Your task to perform on an android device: Open Reddit.com Image 0: 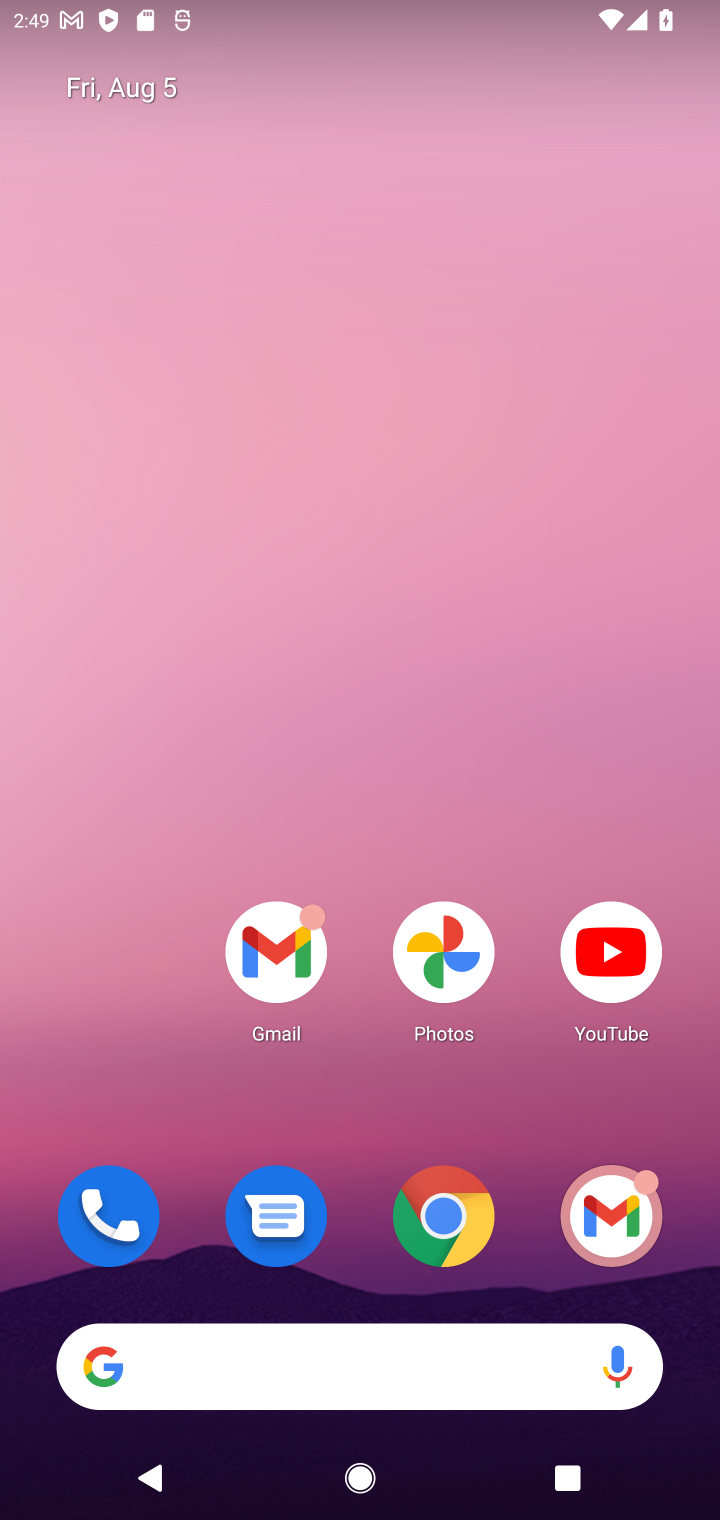
Step 0: click (273, 1346)
Your task to perform on an android device: Open Reddit.com Image 1: 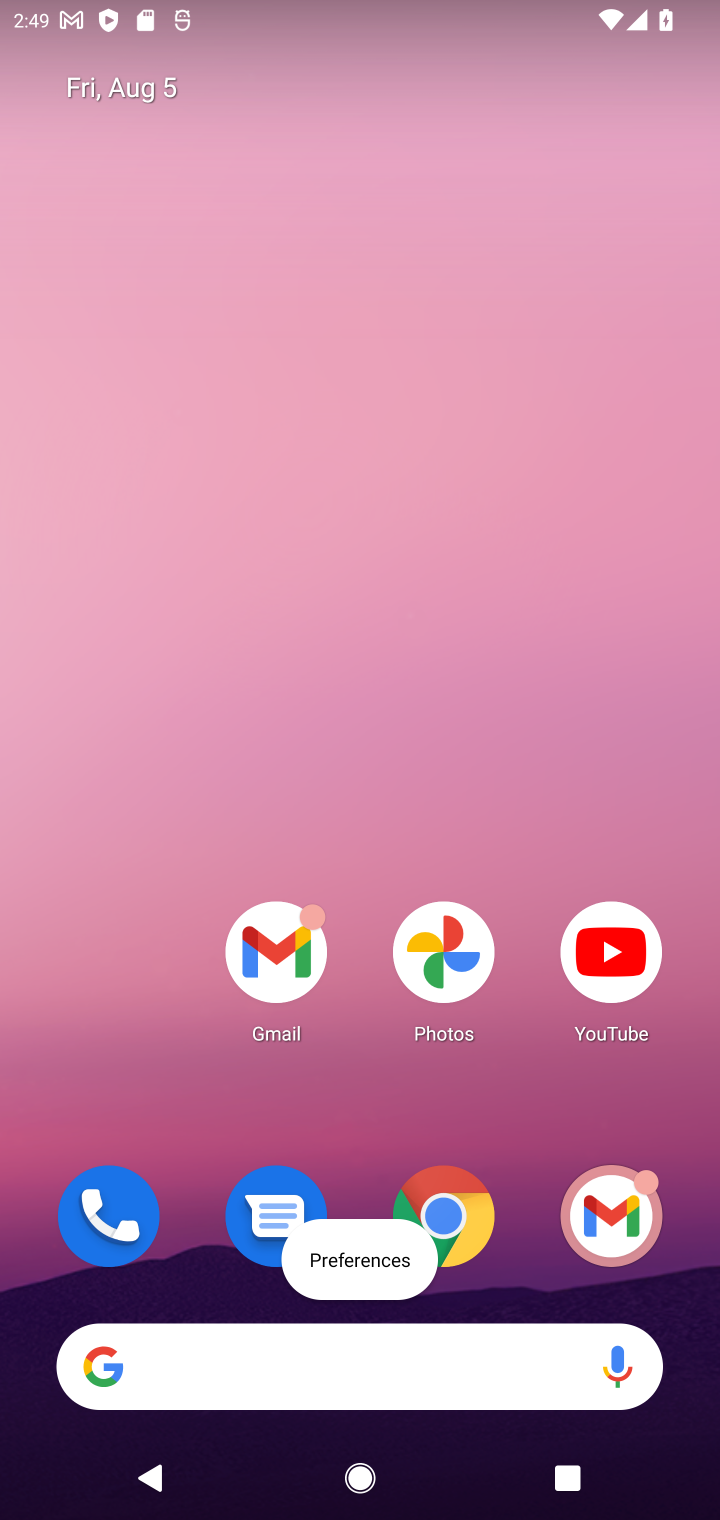
Step 1: click (254, 1378)
Your task to perform on an android device: Open Reddit.com Image 2: 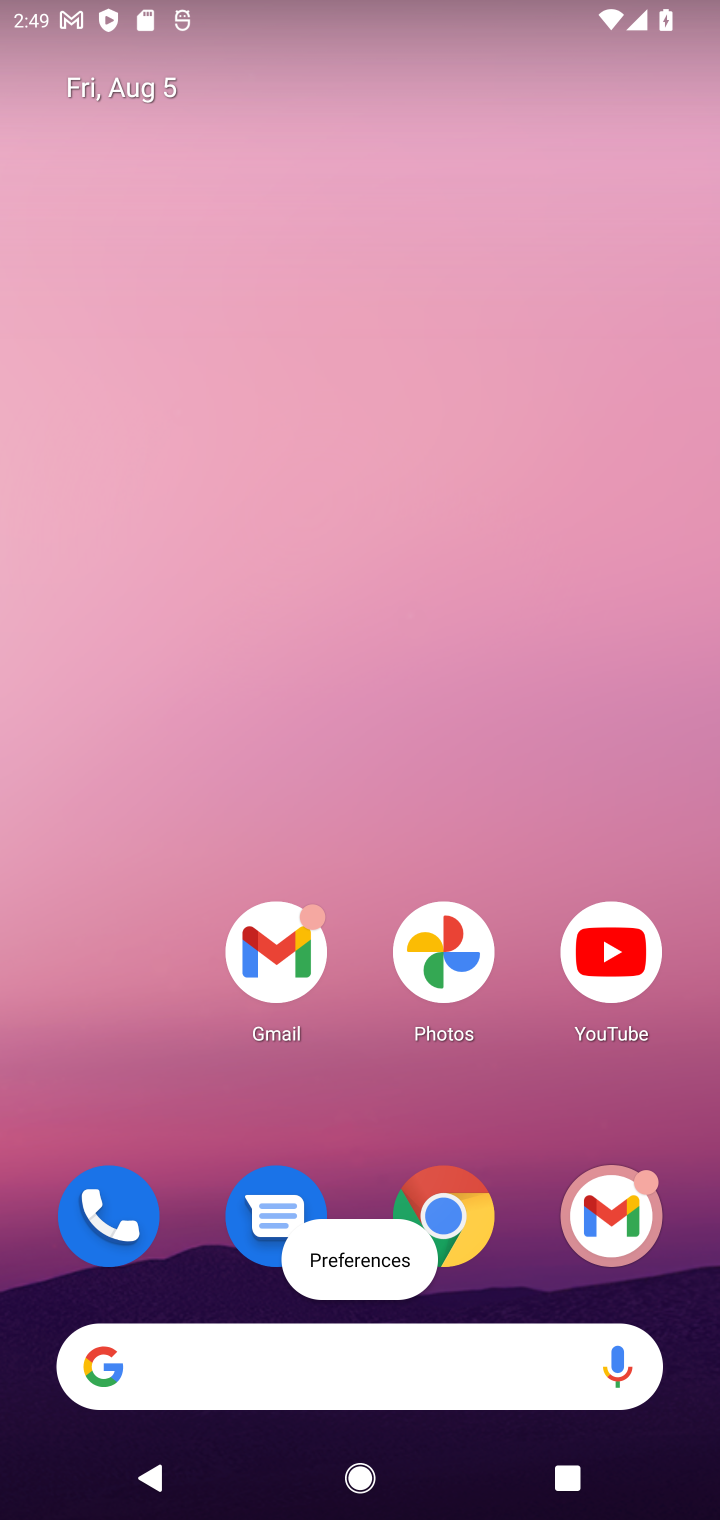
Step 2: click (254, 1378)
Your task to perform on an android device: Open Reddit.com Image 3: 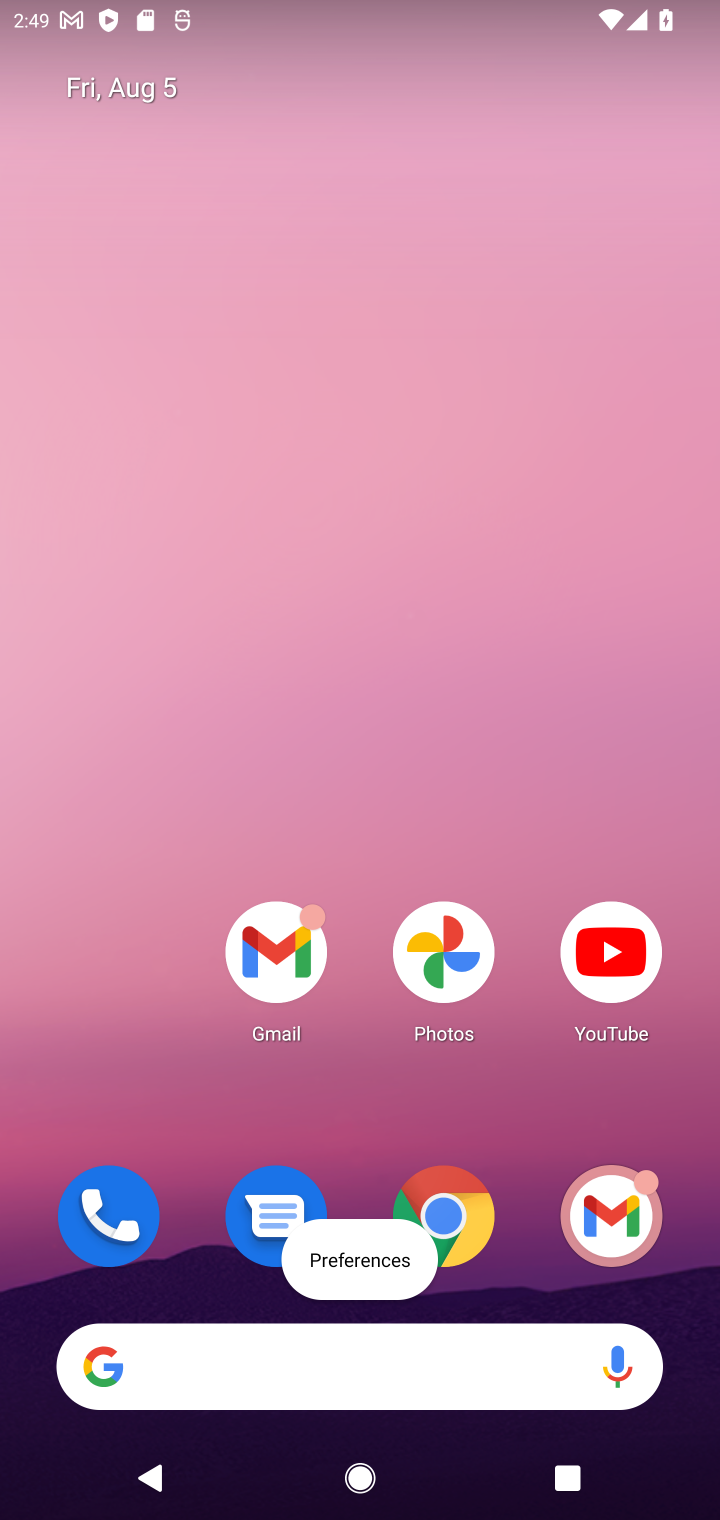
Step 3: click (264, 1358)
Your task to perform on an android device: Open Reddit.com Image 4: 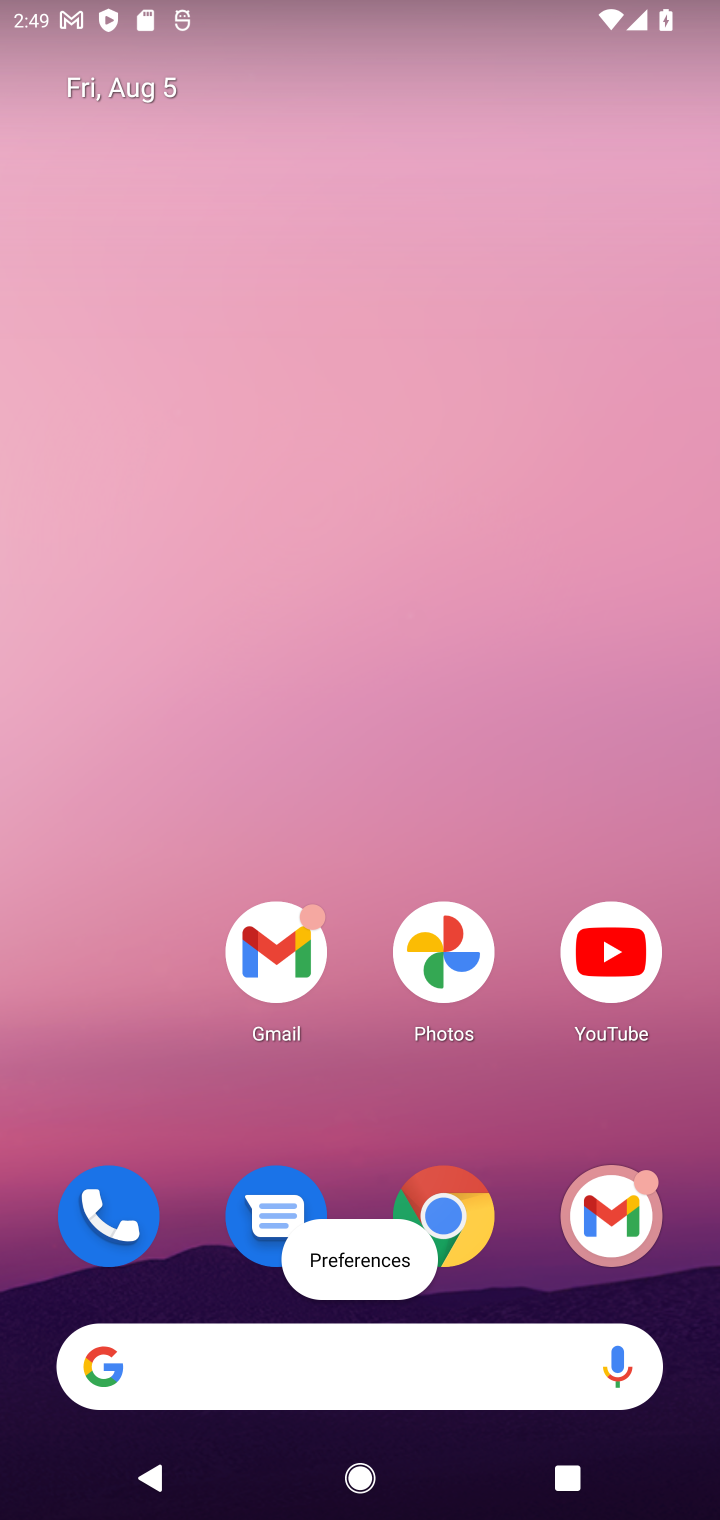
Step 4: click (168, 1380)
Your task to perform on an android device: Open Reddit.com Image 5: 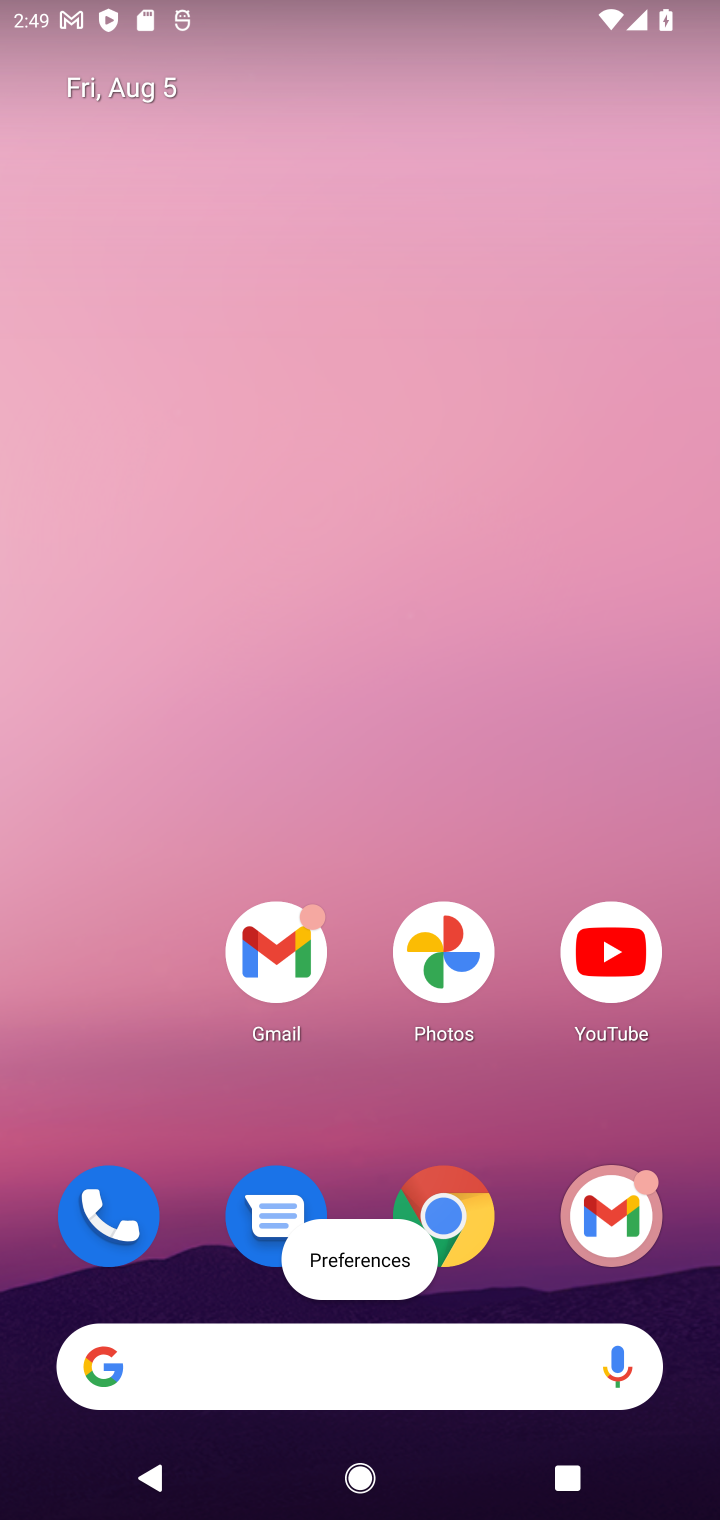
Step 5: click (255, 1345)
Your task to perform on an android device: Open Reddit.com Image 6: 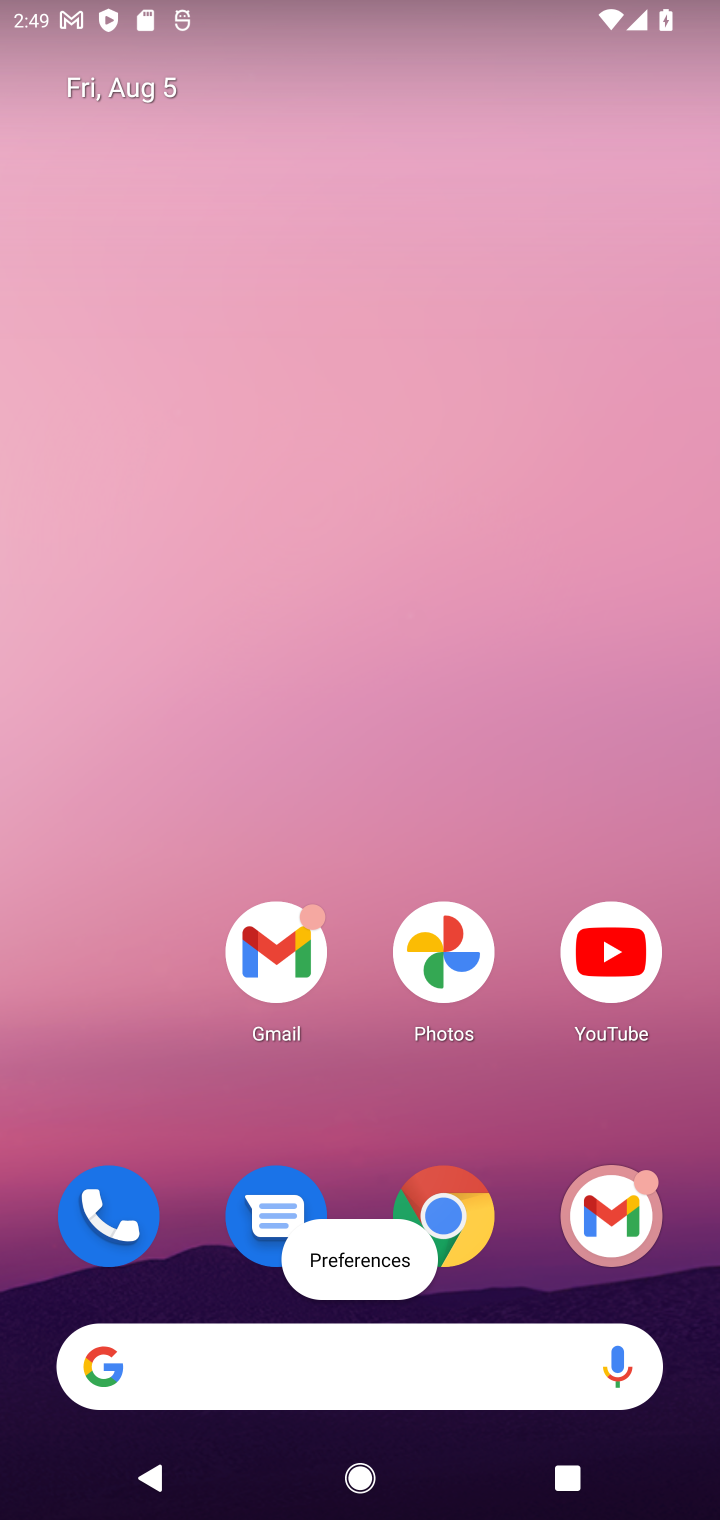
Step 6: click (141, 1347)
Your task to perform on an android device: Open Reddit.com Image 7: 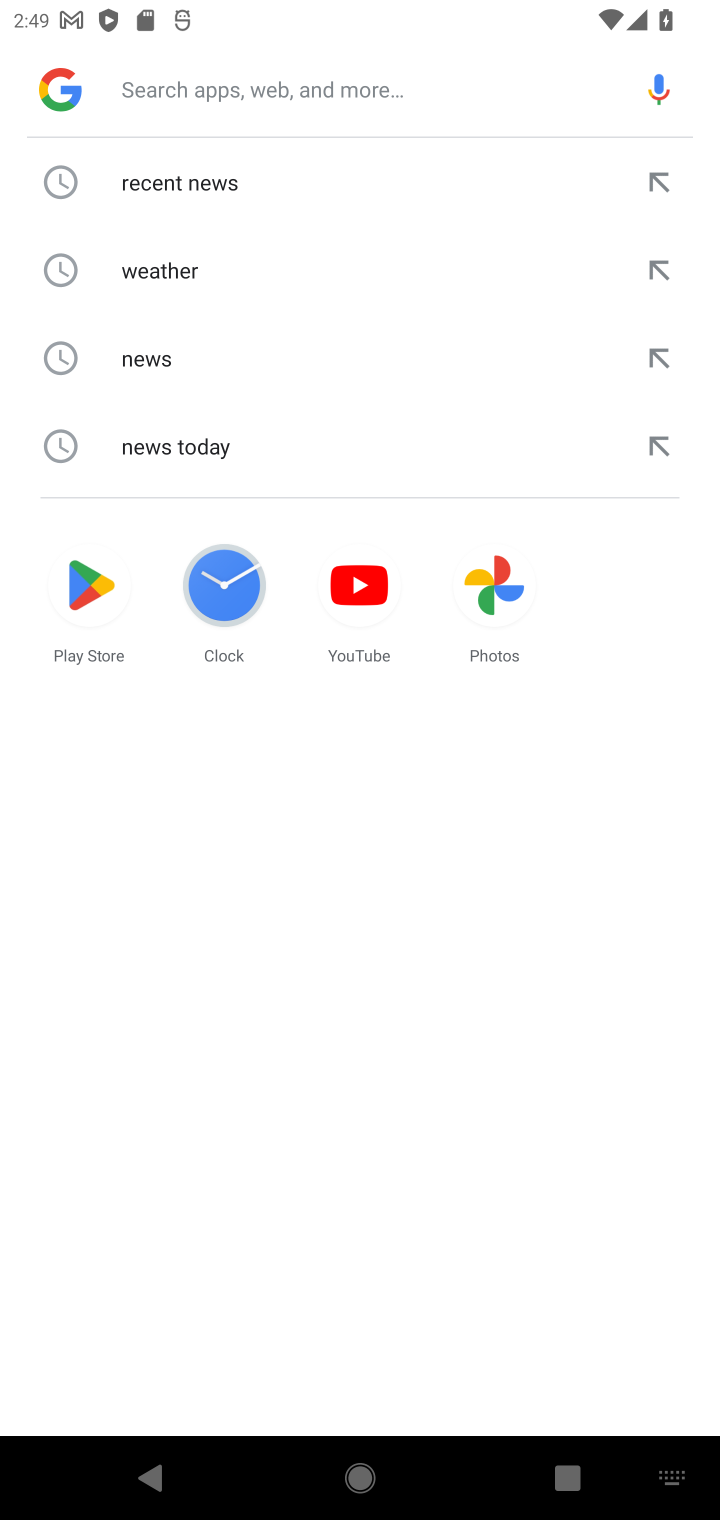
Step 7: type "reddit.com"
Your task to perform on an android device: Open Reddit.com Image 8: 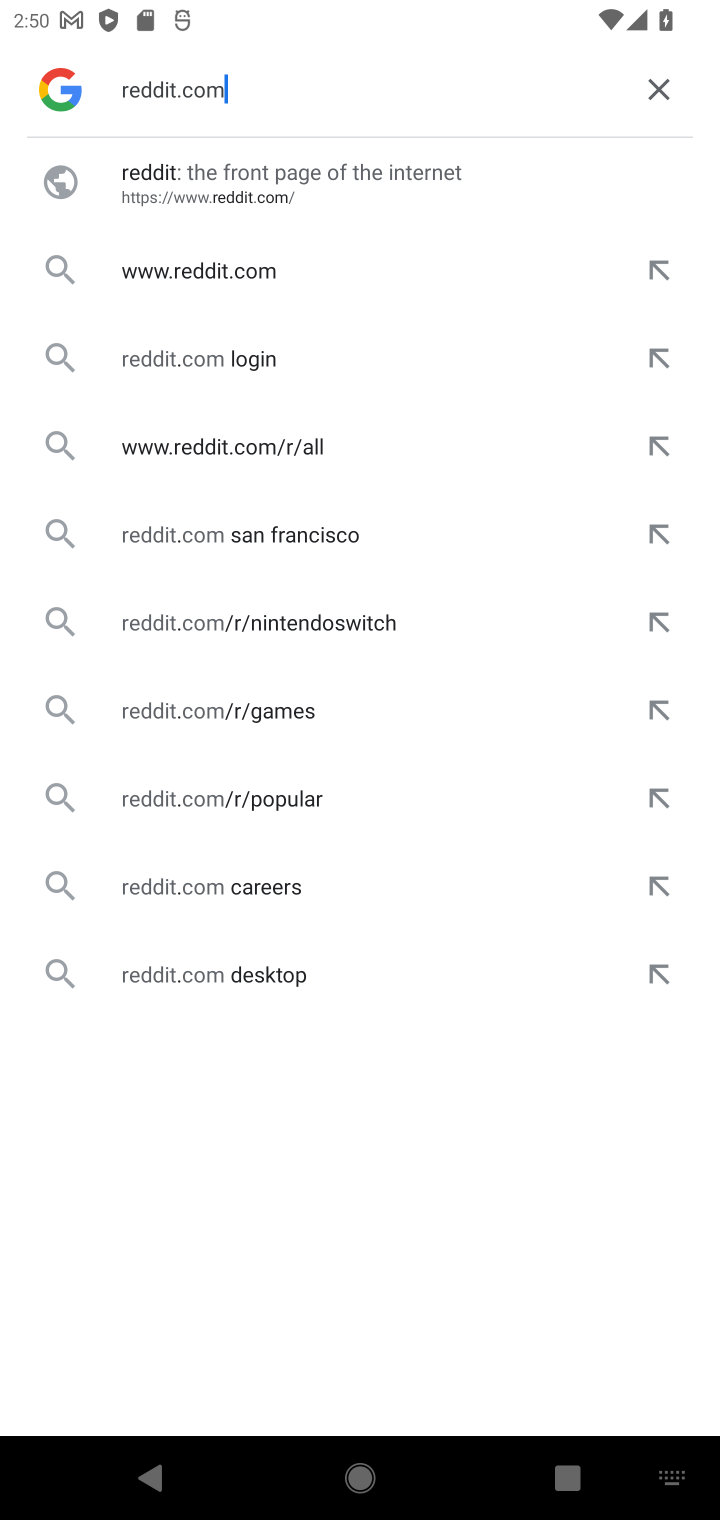
Step 8: click (422, 175)
Your task to perform on an android device: Open Reddit.com Image 9: 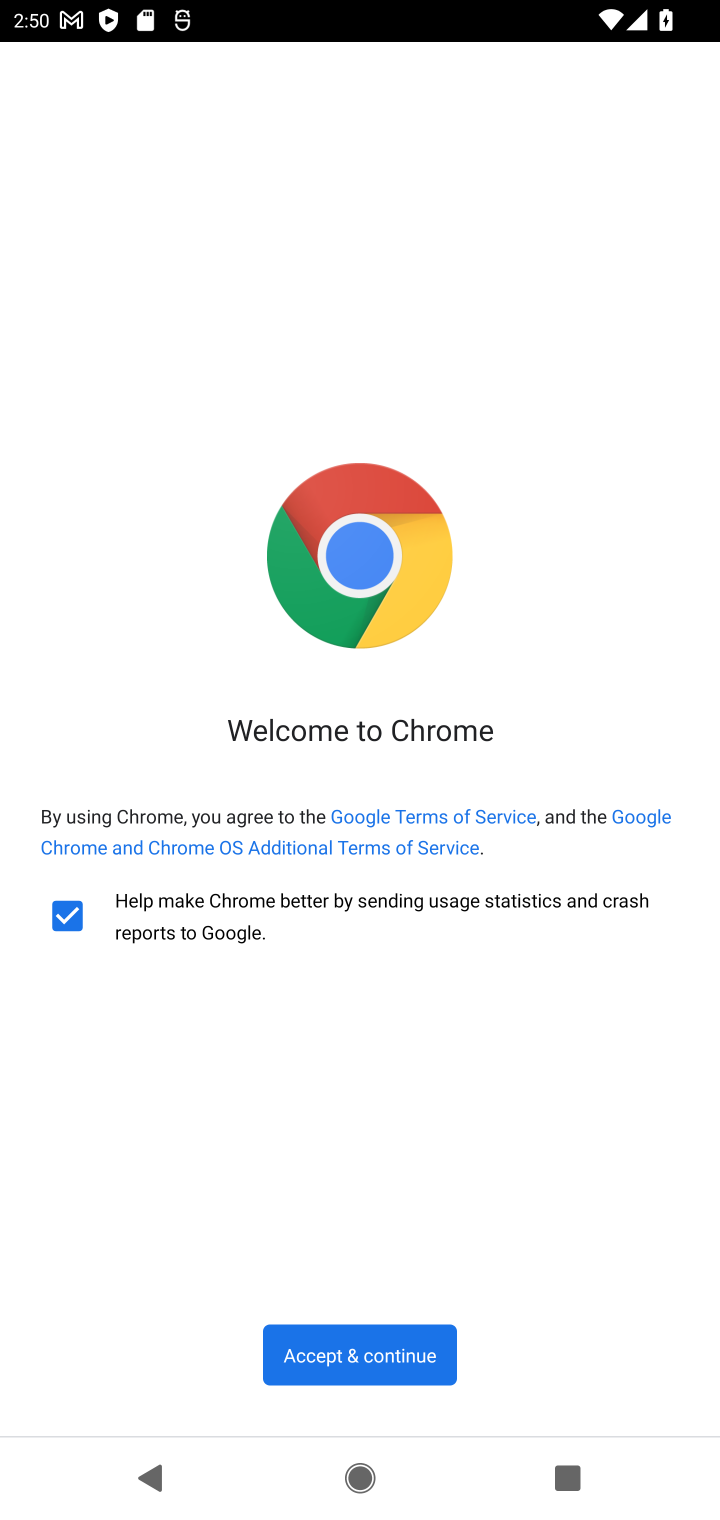
Step 9: click (437, 1355)
Your task to perform on an android device: Open Reddit.com Image 10: 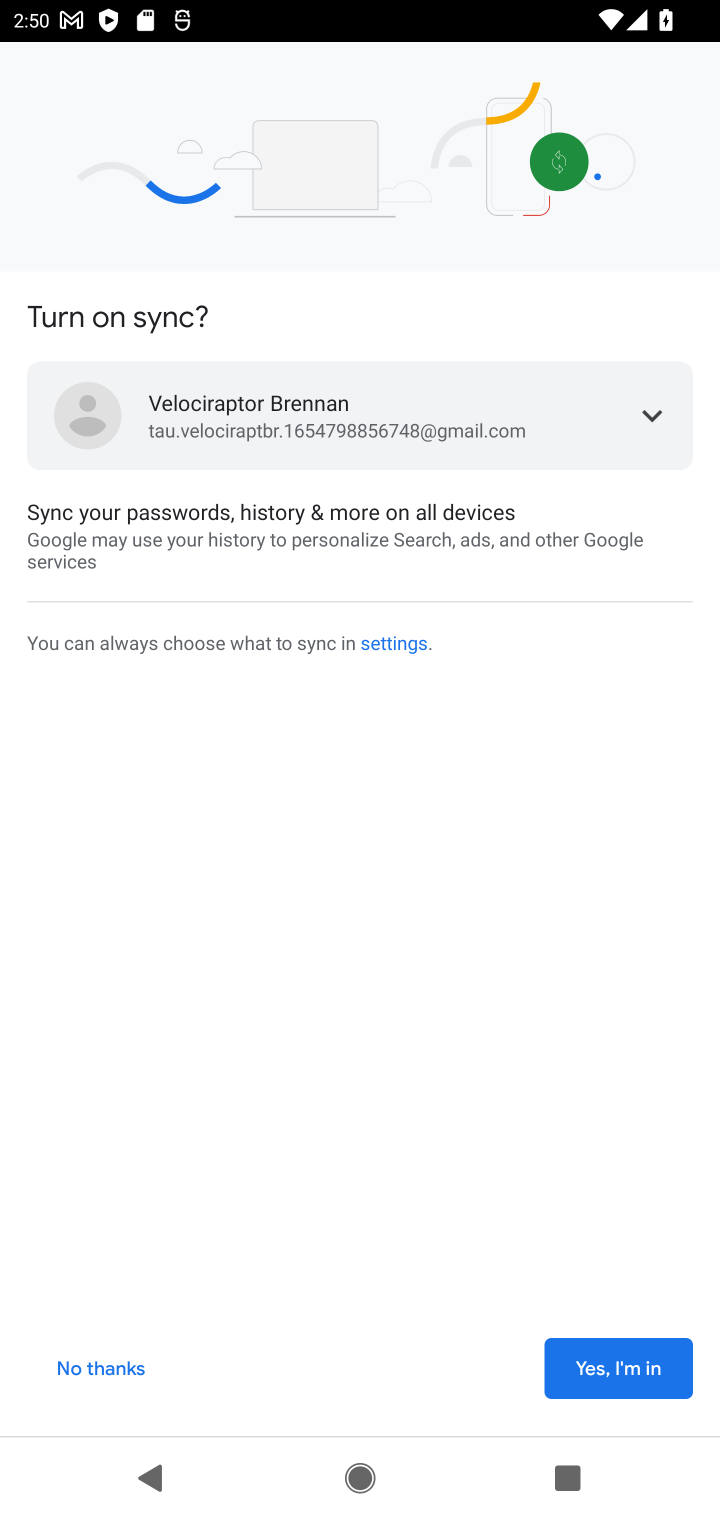
Step 10: click (642, 1364)
Your task to perform on an android device: Open Reddit.com Image 11: 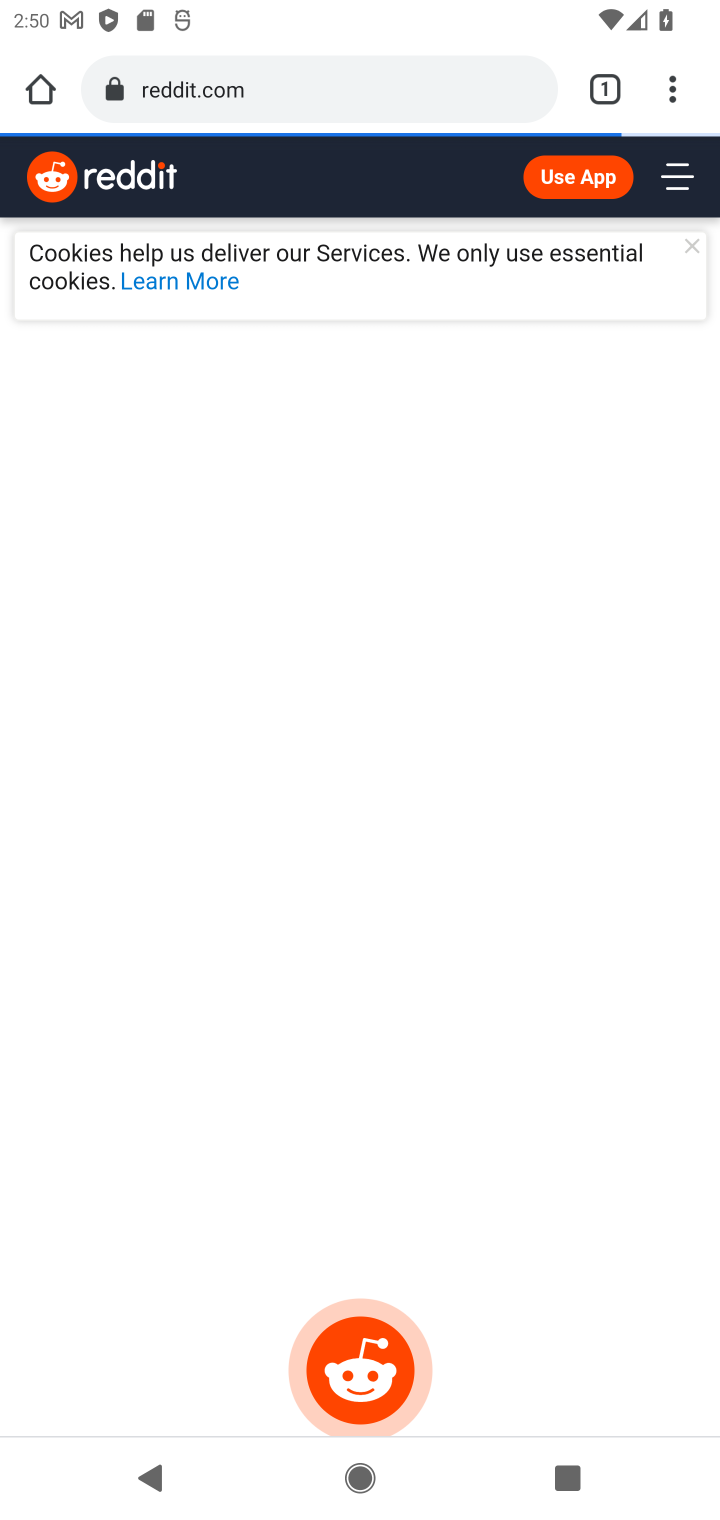
Step 11: task complete